Your task to perform on an android device: check the backup settings in the google photos Image 0: 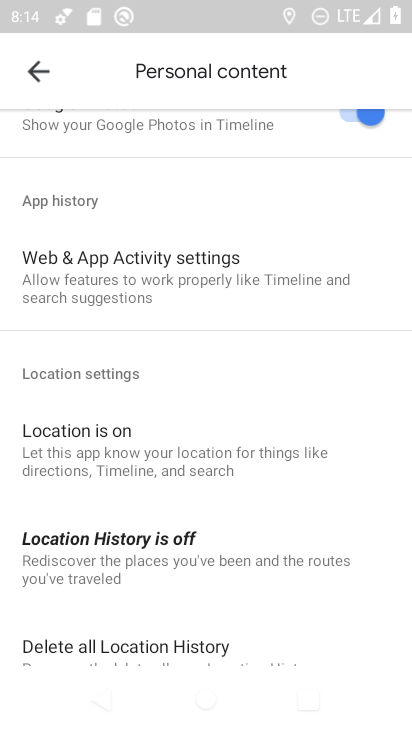
Step 0: press home button
Your task to perform on an android device: check the backup settings in the google photos Image 1: 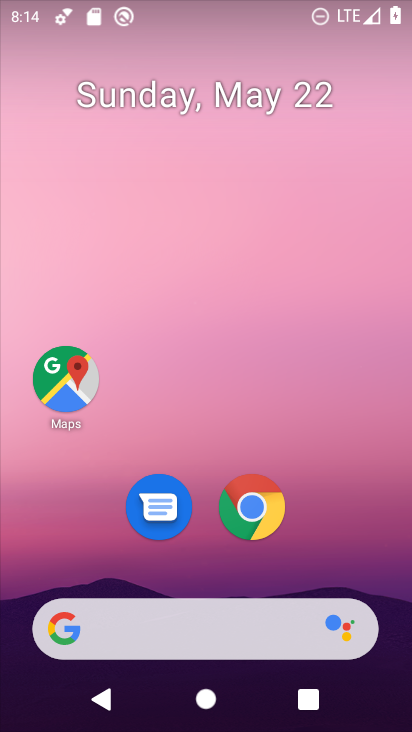
Step 1: drag from (171, 642) to (216, 5)
Your task to perform on an android device: check the backup settings in the google photos Image 2: 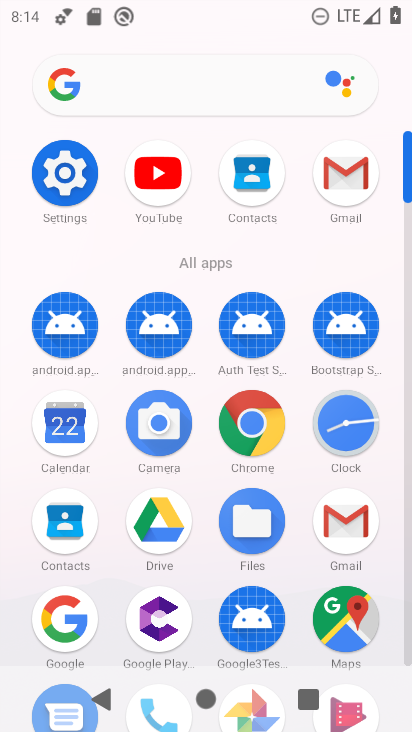
Step 2: drag from (281, 619) to (220, 87)
Your task to perform on an android device: check the backup settings in the google photos Image 3: 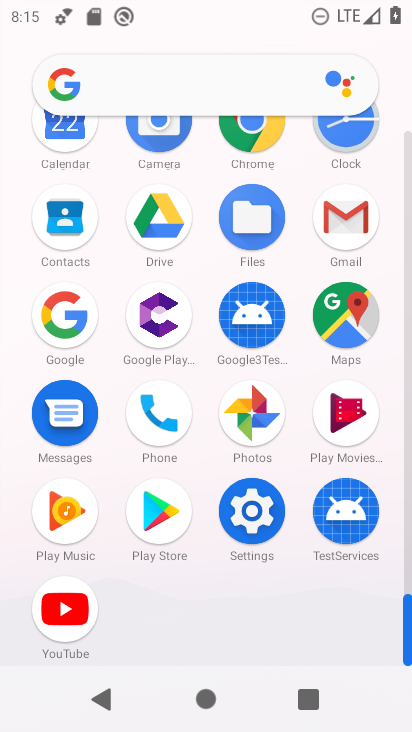
Step 3: click (259, 393)
Your task to perform on an android device: check the backup settings in the google photos Image 4: 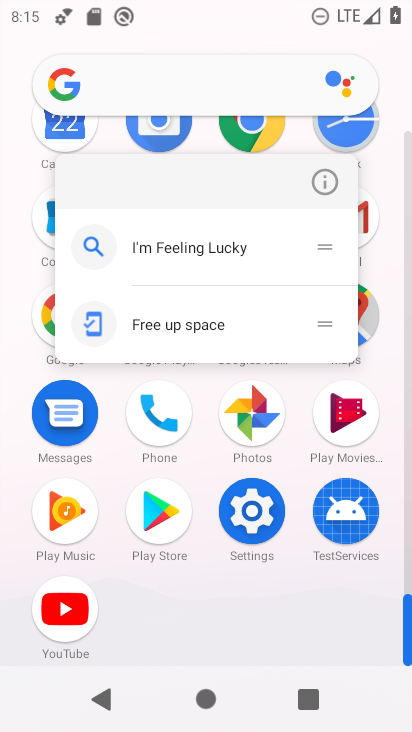
Step 4: click (257, 397)
Your task to perform on an android device: check the backup settings in the google photos Image 5: 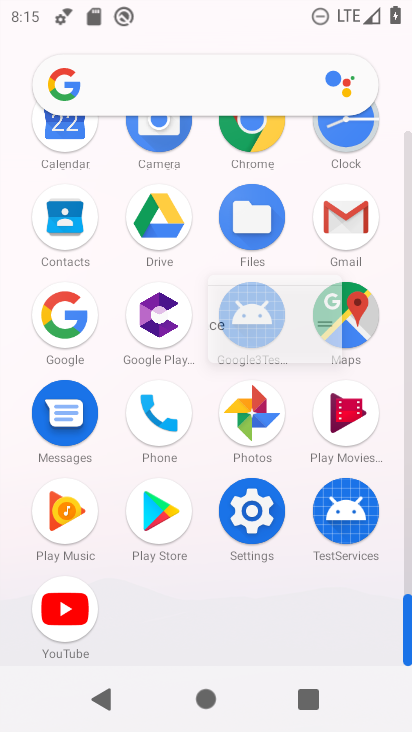
Step 5: click (257, 397)
Your task to perform on an android device: check the backup settings in the google photos Image 6: 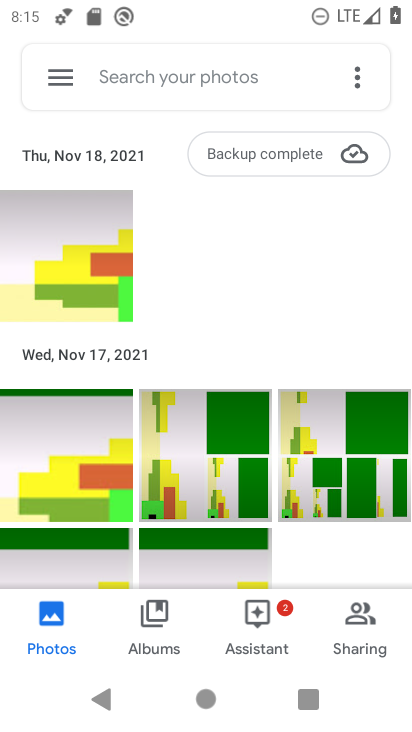
Step 6: click (354, 80)
Your task to perform on an android device: check the backup settings in the google photos Image 7: 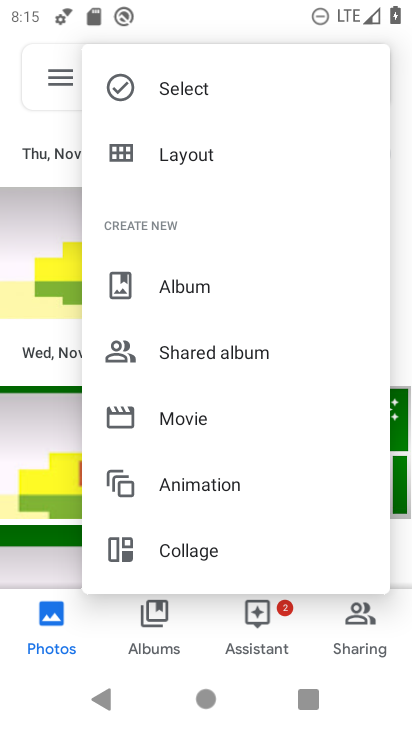
Step 7: click (58, 76)
Your task to perform on an android device: check the backup settings in the google photos Image 8: 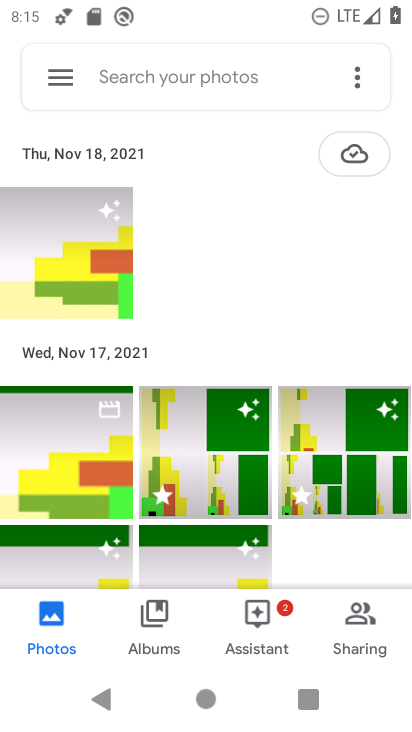
Step 8: click (58, 76)
Your task to perform on an android device: check the backup settings in the google photos Image 9: 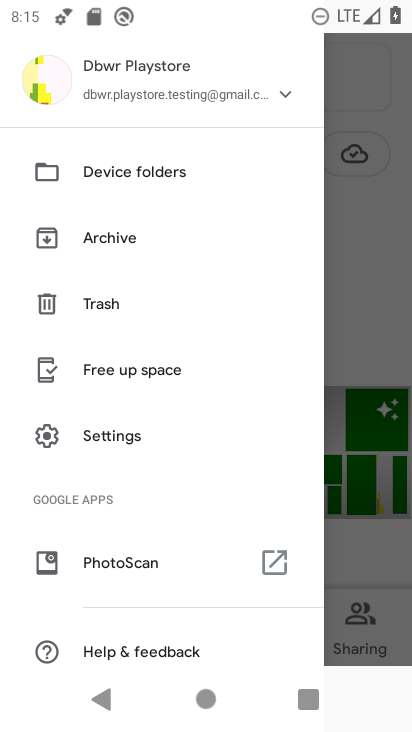
Step 9: click (129, 434)
Your task to perform on an android device: check the backup settings in the google photos Image 10: 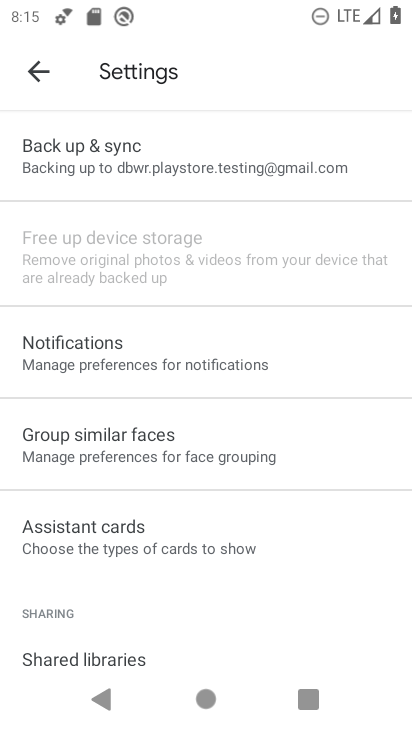
Step 10: click (198, 165)
Your task to perform on an android device: check the backup settings in the google photos Image 11: 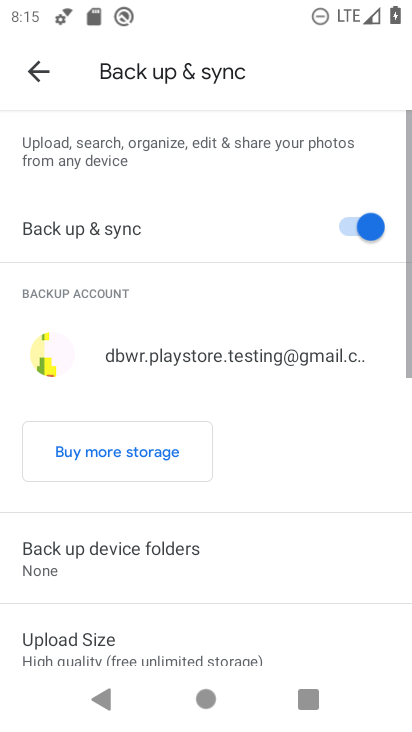
Step 11: task complete